Your task to perform on an android device: toggle improve location accuracy Image 0: 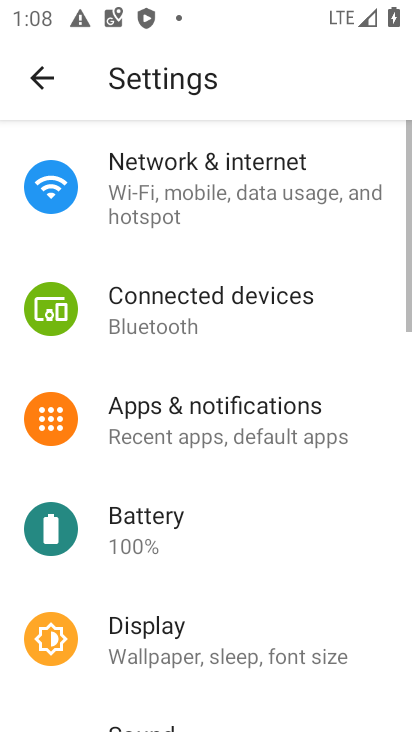
Step 0: press home button
Your task to perform on an android device: toggle improve location accuracy Image 1: 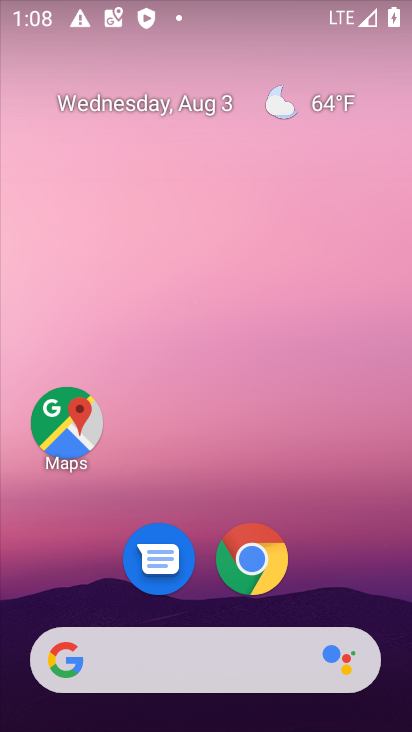
Step 1: drag from (204, 598) to (234, 86)
Your task to perform on an android device: toggle improve location accuracy Image 2: 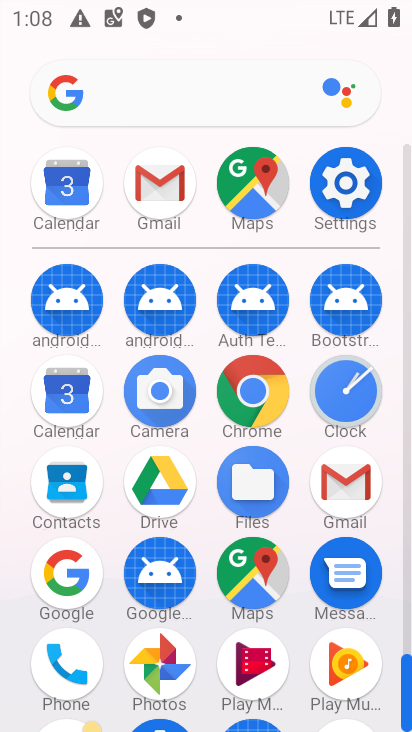
Step 2: click (340, 183)
Your task to perform on an android device: toggle improve location accuracy Image 3: 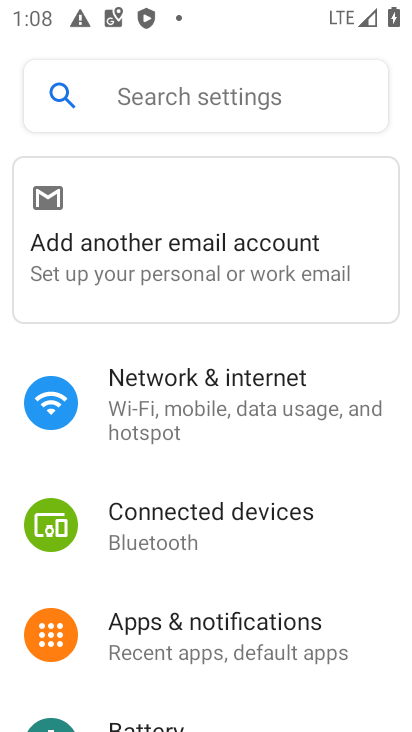
Step 3: drag from (163, 681) to (180, 307)
Your task to perform on an android device: toggle improve location accuracy Image 4: 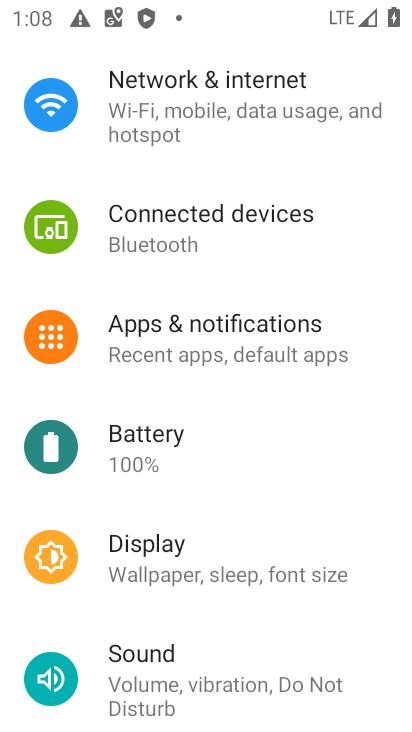
Step 4: drag from (180, 691) to (221, 290)
Your task to perform on an android device: toggle improve location accuracy Image 5: 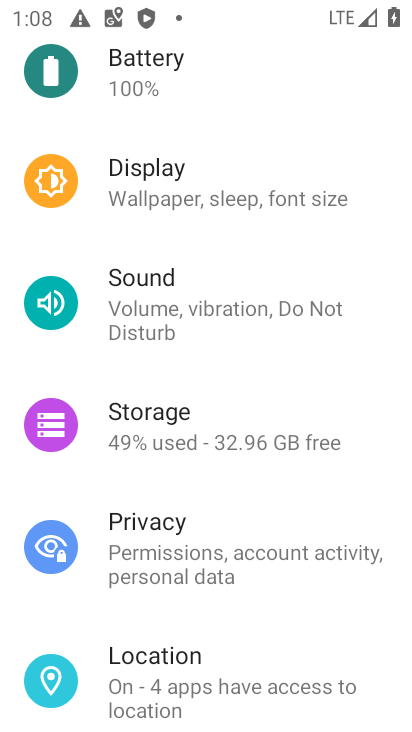
Step 5: click (145, 666)
Your task to perform on an android device: toggle improve location accuracy Image 6: 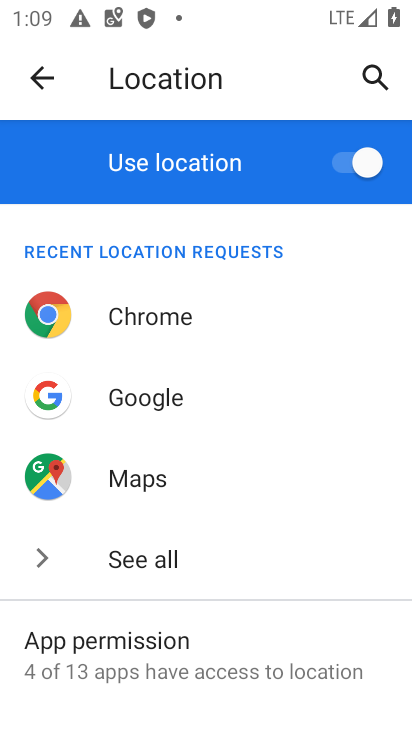
Step 6: drag from (174, 668) to (186, 325)
Your task to perform on an android device: toggle improve location accuracy Image 7: 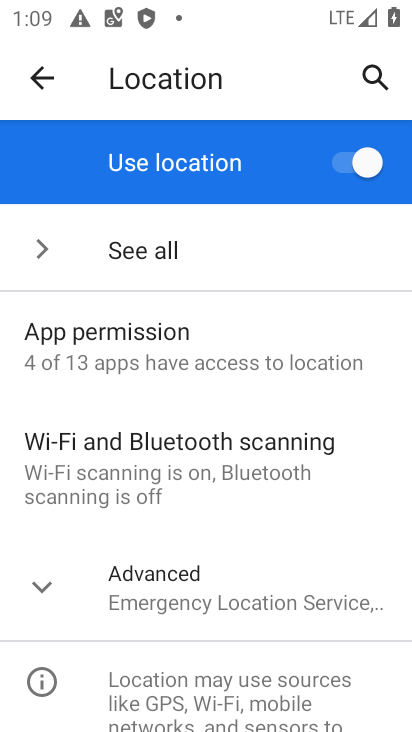
Step 7: click (193, 600)
Your task to perform on an android device: toggle improve location accuracy Image 8: 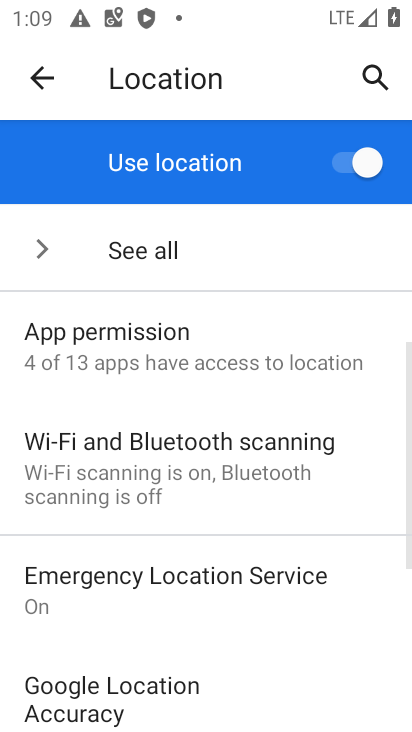
Step 8: drag from (211, 665) to (208, 394)
Your task to perform on an android device: toggle improve location accuracy Image 9: 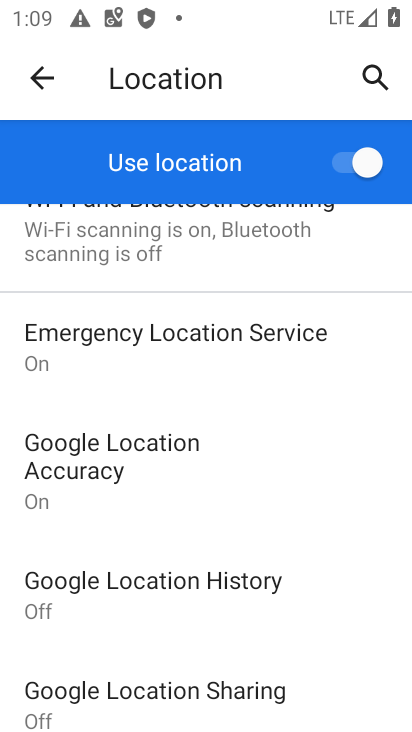
Step 9: click (87, 463)
Your task to perform on an android device: toggle improve location accuracy Image 10: 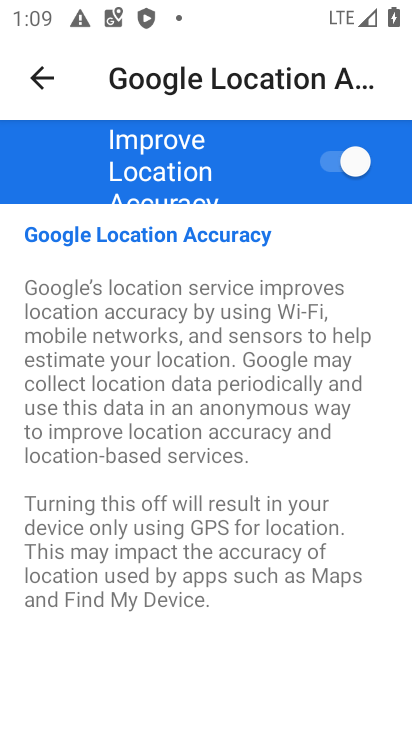
Step 10: click (338, 162)
Your task to perform on an android device: toggle improve location accuracy Image 11: 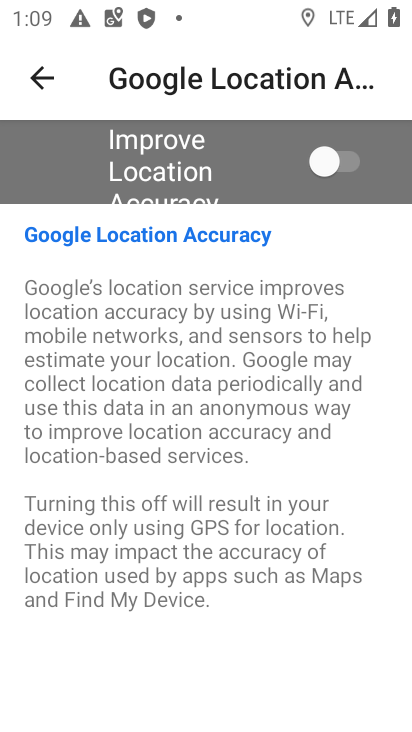
Step 11: task complete